Your task to perform on an android device: Open Google Chrome and click the shortcut for Amazon.com Image 0: 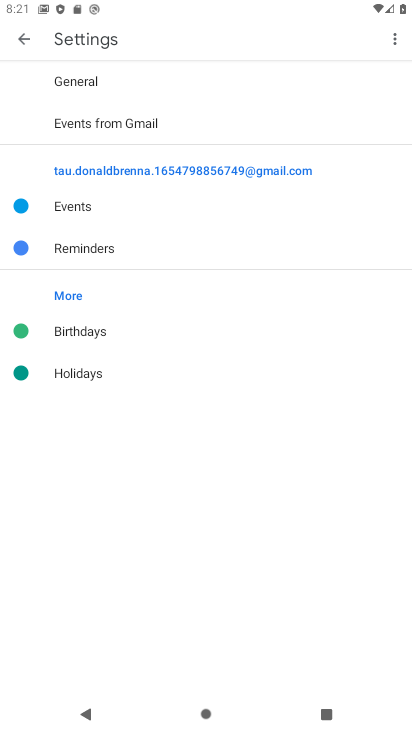
Step 0: press home button
Your task to perform on an android device: Open Google Chrome and click the shortcut for Amazon.com Image 1: 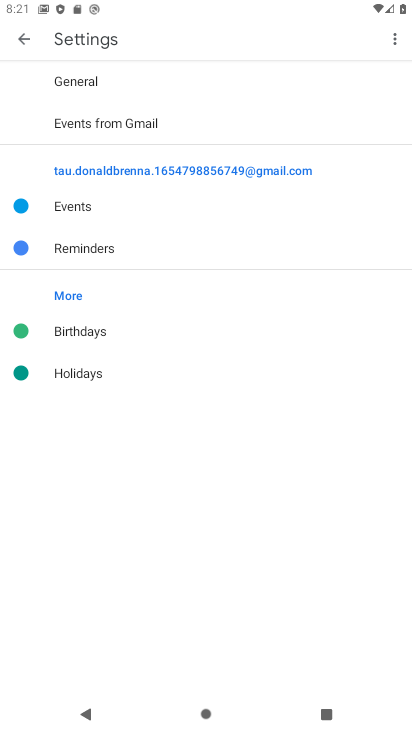
Step 1: press home button
Your task to perform on an android device: Open Google Chrome and click the shortcut for Amazon.com Image 2: 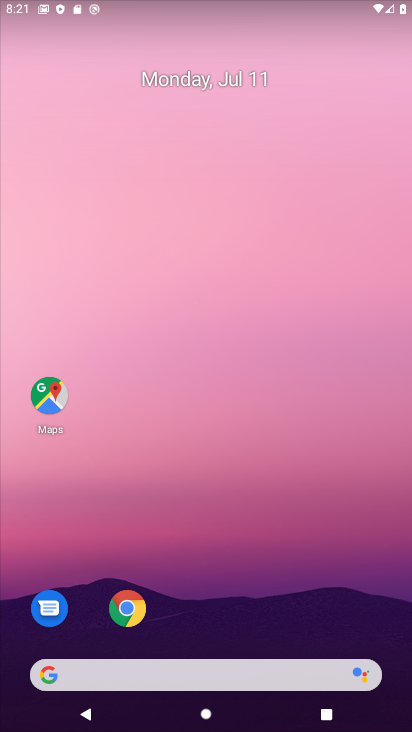
Step 2: click (116, 610)
Your task to perform on an android device: Open Google Chrome and click the shortcut for Amazon.com Image 3: 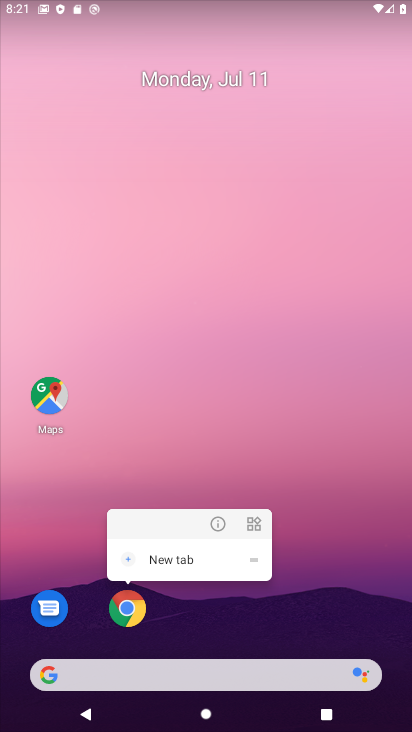
Step 3: click (124, 606)
Your task to perform on an android device: Open Google Chrome and click the shortcut for Amazon.com Image 4: 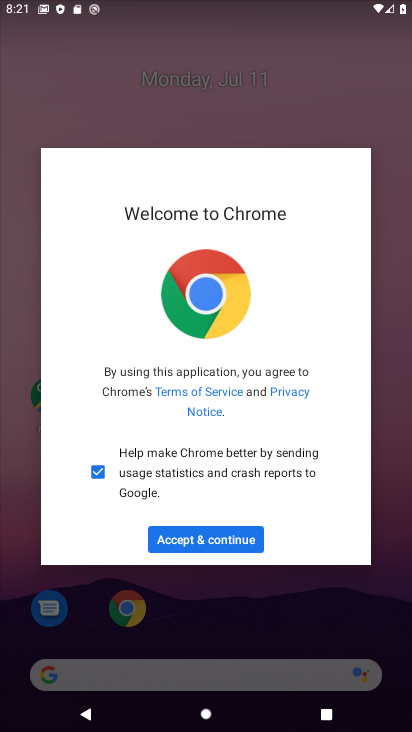
Step 4: click (225, 548)
Your task to perform on an android device: Open Google Chrome and click the shortcut for Amazon.com Image 5: 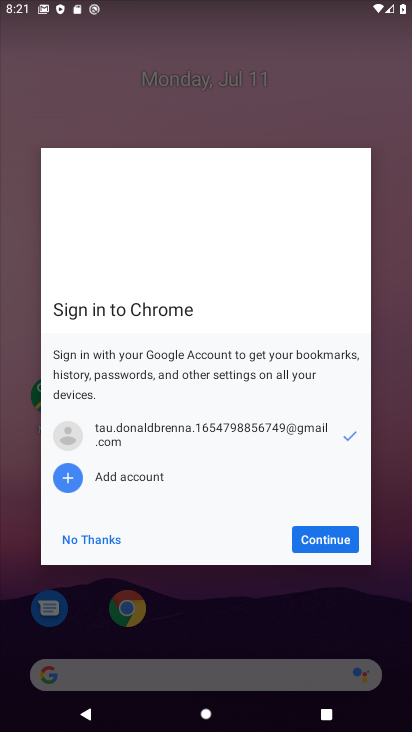
Step 5: click (314, 539)
Your task to perform on an android device: Open Google Chrome and click the shortcut for Amazon.com Image 6: 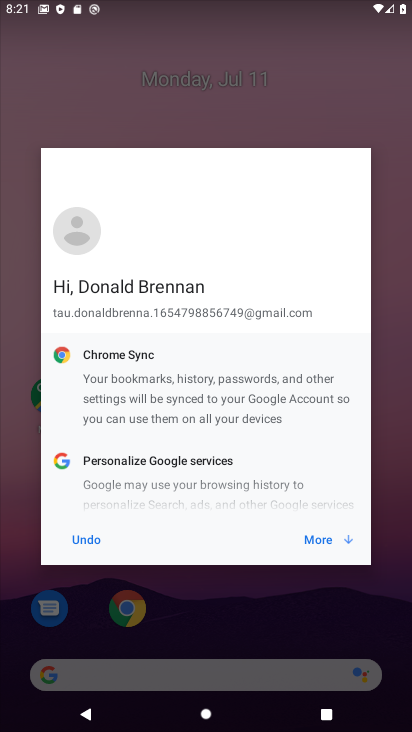
Step 6: click (318, 536)
Your task to perform on an android device: Open Google Chrome and click the shortcut for Amazon.com Image 7: 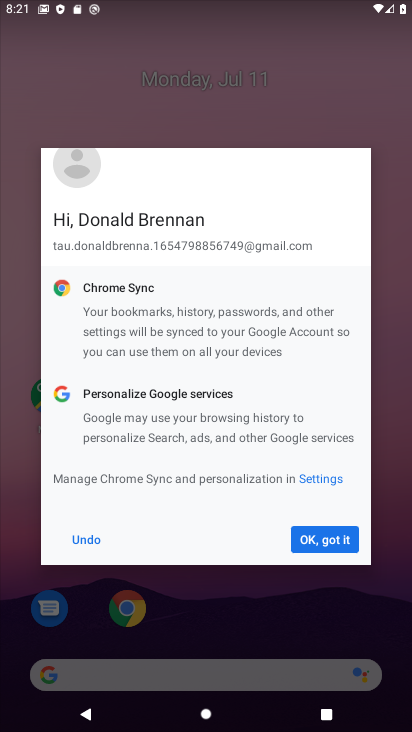
Step 7: click (318, 536)
Your task to perform on an android device: Open Google Chrome and click the shortcut for Amazon.com Image 8: 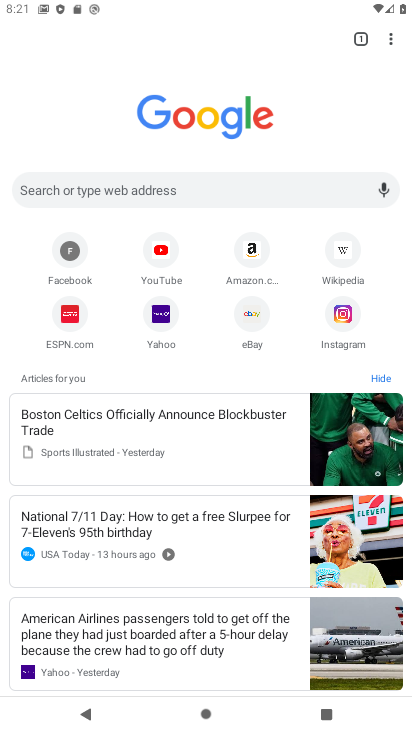
Step 8: click (251, 242)
Your task to perform on an android device: Open Google Chrome and click the shortcut for Amazon.com Image 9: 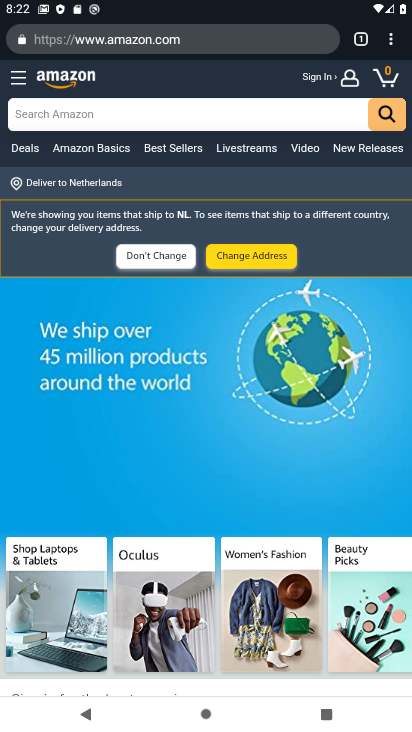
Step 9: task complete